Your task to perform on an android device: change the upload size in google photos Image 0: 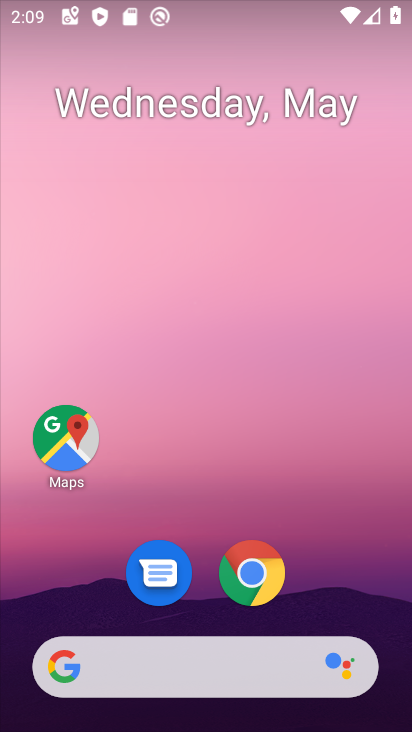
Step 0: drag from (334, 594) to (307, 47)
Your task to perform on an android device: change the upload size in google photos Image 1: 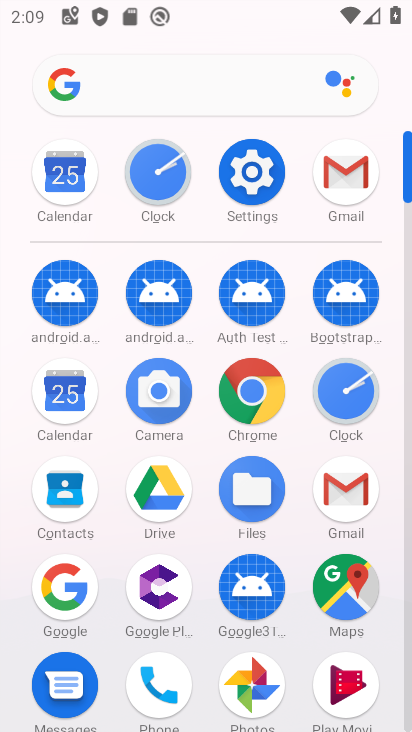
Step 1: drag from (290, 614) to (294, 328)
Your task to perform on an android device: change the upload size in google photos Image 2: 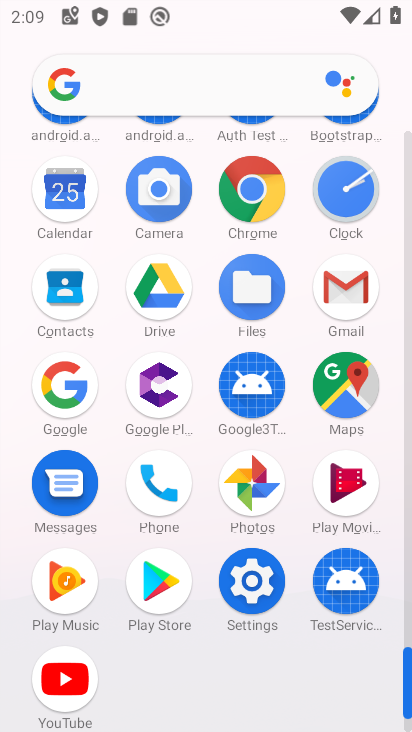
Step 2: click (261, 502)
Your task to perform on an android device: change the upload size in google photos Image 3: 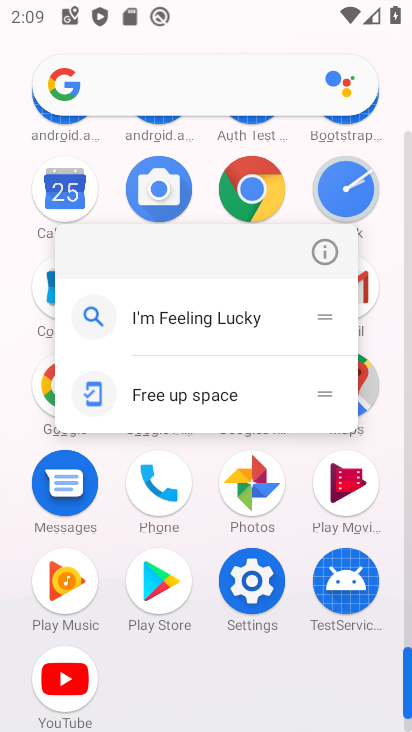
Step 3: click (261, 501)
Your task to perform on an android device: change the upload size in google photos Image 4: 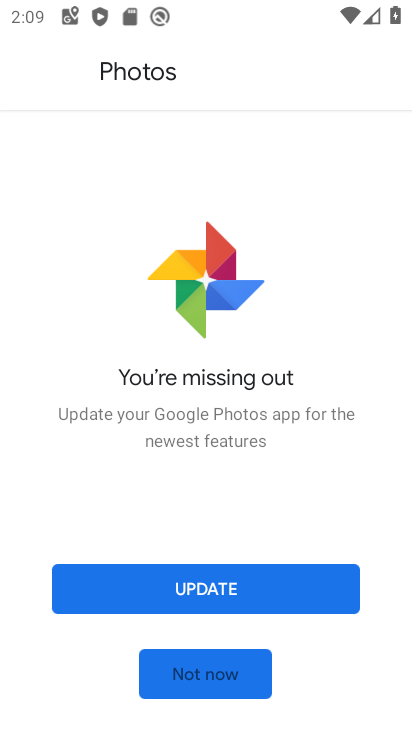
Step 4: click (161, 594)
Your task to perform on an android device: change the upload size in google photos Image 5: 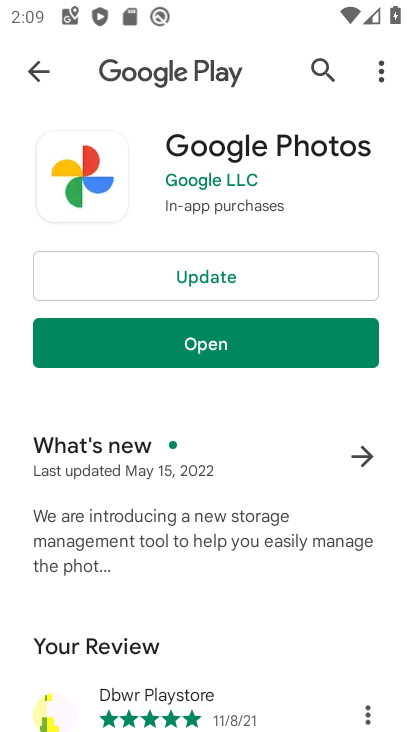
Step 5: click (194, 266)
Your task to perform on an android device: change the upload size in google photos Image 6: 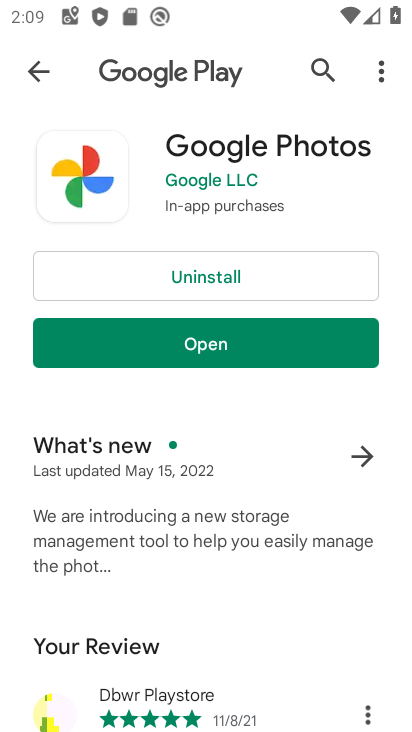
Step 6: click (239, 345)
Your task to perform on an android device: change the upload size in google photos Image 7: 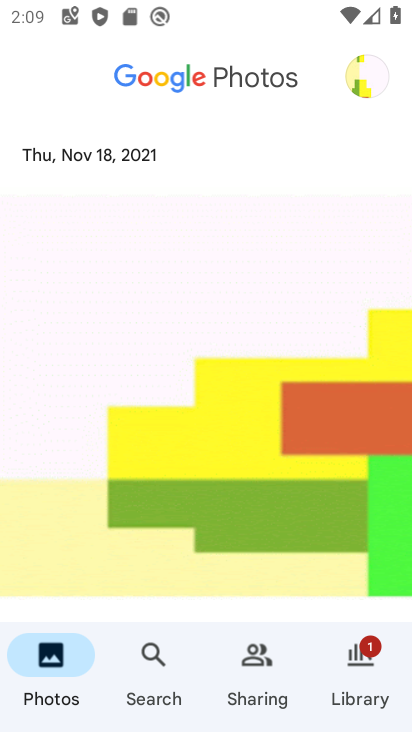
Step 7: click (373, 72)
Your task to perform on an android device: change the upload size in google photos Image 8: 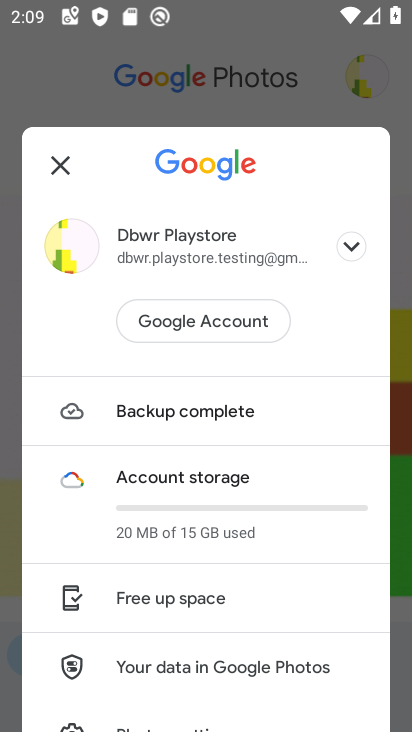
Step 8: drag from (266, 557) to (252, 161)
Your task to perform on an android device: change the upload size in google photos Image 9: 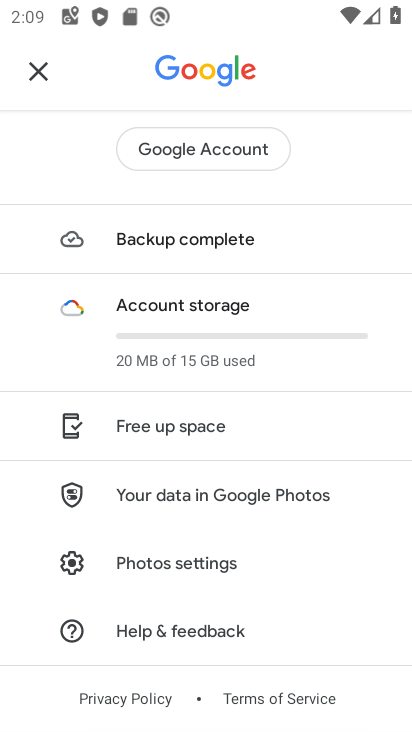
Step 9: click (190, 568)
Your task to perform on an android device: change the upload size in google photos Image 10: 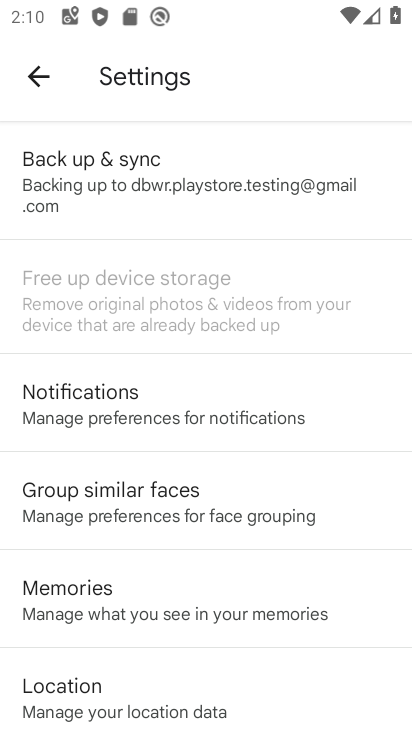
Step 10: click (152, 179)
Your task to perform on an android device: change the upload size in google photos Image 11: 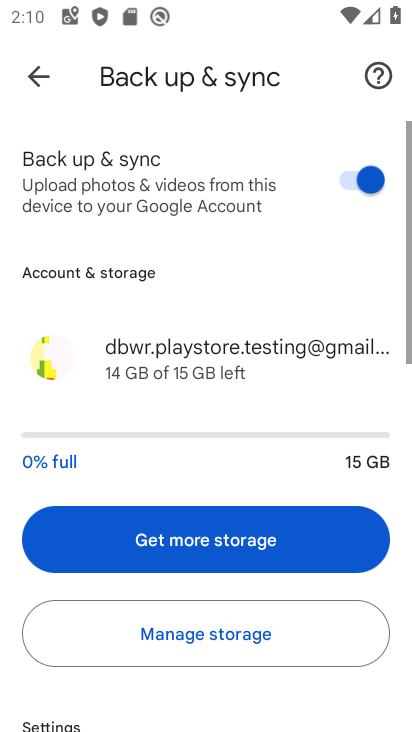
Step 11: drag from (266, 692) to (283, 385)
Your task to perform on an android device: change the upload size in google photos Image 12: 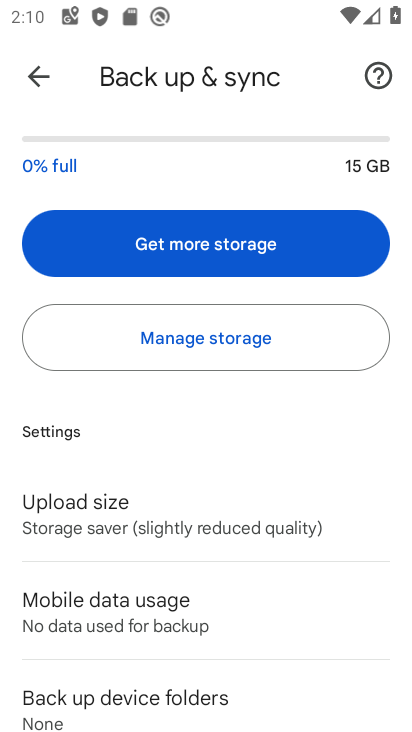
Step 12: click (136, 507)
Your task to perform on an android device: change the upload size in google photos Image 13: 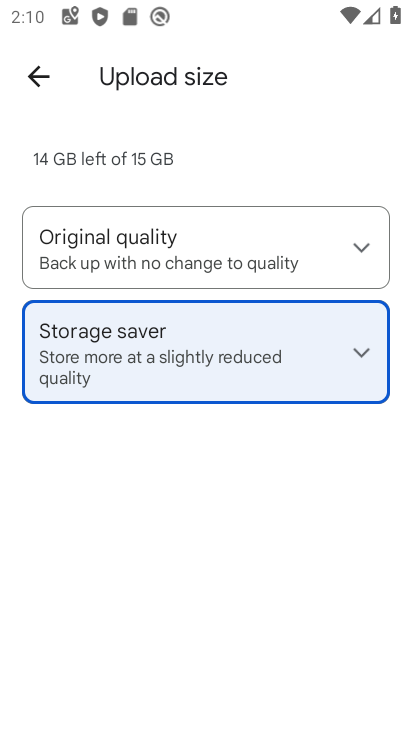
Step 13: click (240, 269)
Your task to perform on an android device: change the upload size in google photos Image 14: 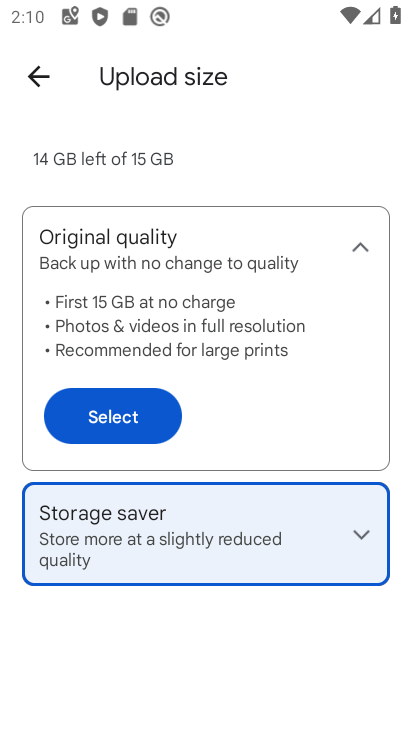
Step 14: click (136, 427)
Your task to perform on an android device: change the upload size in google photos Image 15: 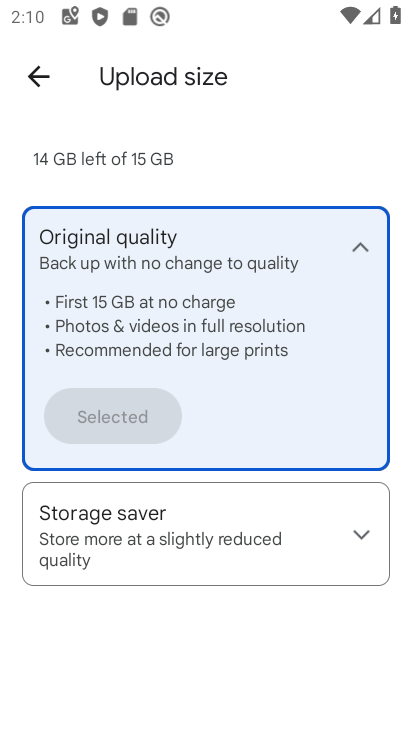
Step 15: task complete